Your task to perform on an android device: uninstall "eBay: The shopping marketplace" Image 0: 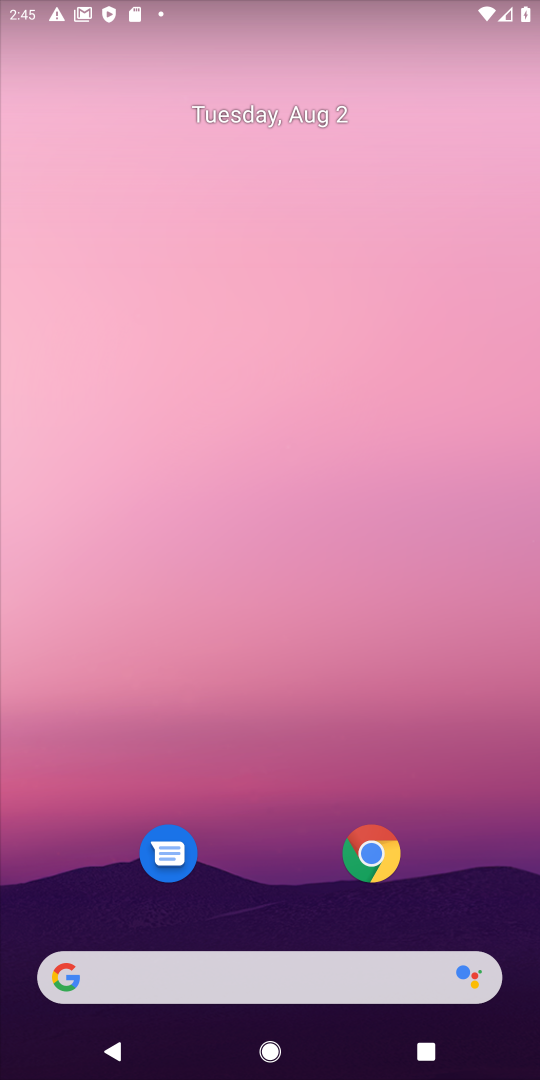
Step 0: drag from (294, 882) to (324, 6)
Your task to perform on an android device: uninstall "eBay: The shopping marketplace" Image 1: 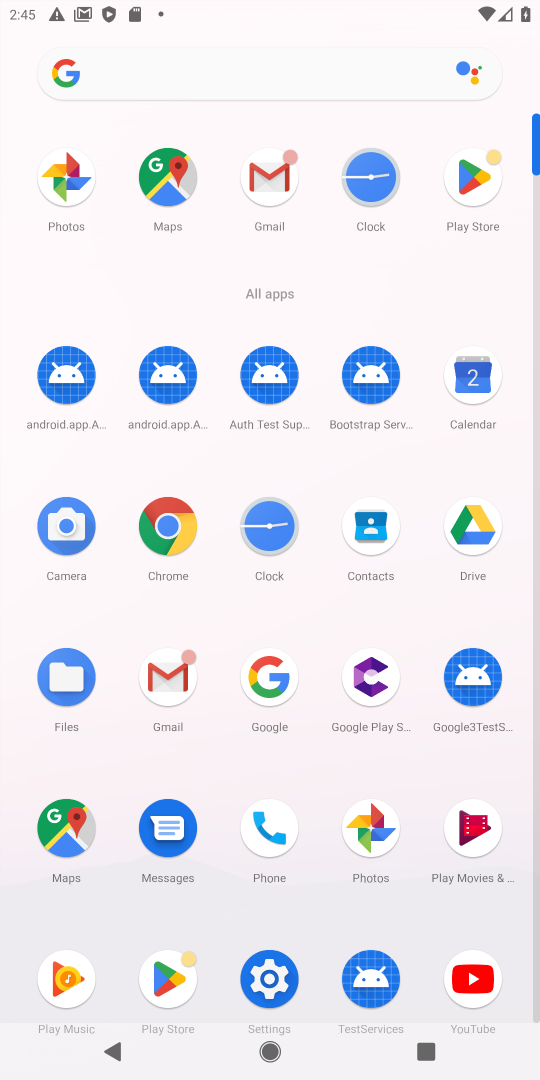
Step 1: click (482, 156)
Your task to perform on an android device: uninstall "eBay: The shopping marketplace" Image 2: 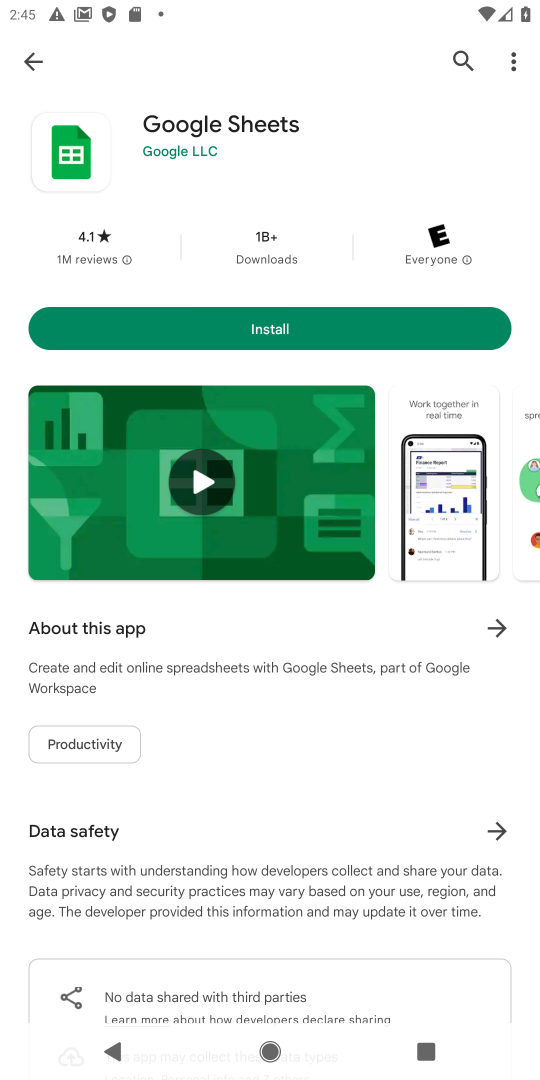
Step 2: click (464, 63)
Your task to perform on an android device: uninstall "eBay: The shopping marketplace" Image 3: 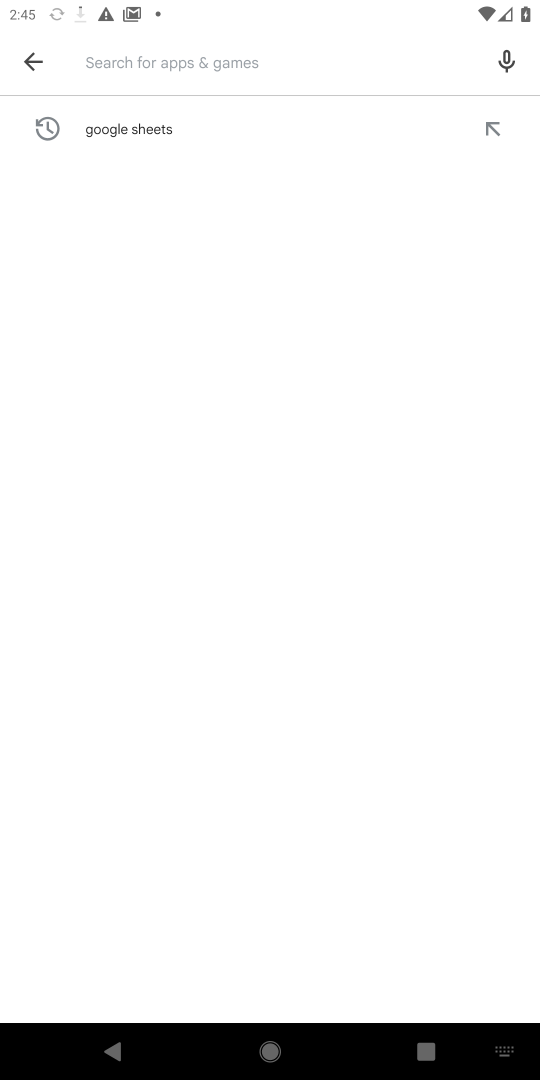
Step 3: type "ebay: the shopping marketplace"
Your task to perform on an android device: uninstall "eBay: The shopping marketplace" Image 4: 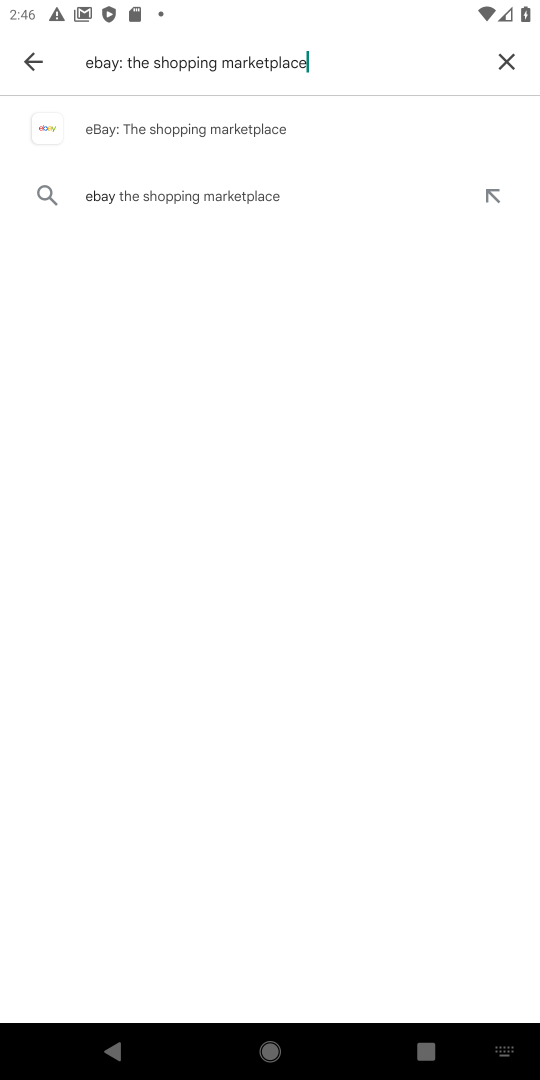
Step 4: click (415, 145)
Your task to perform on an android device: uninstall "eBay: The shopping marketplace" Image 5: 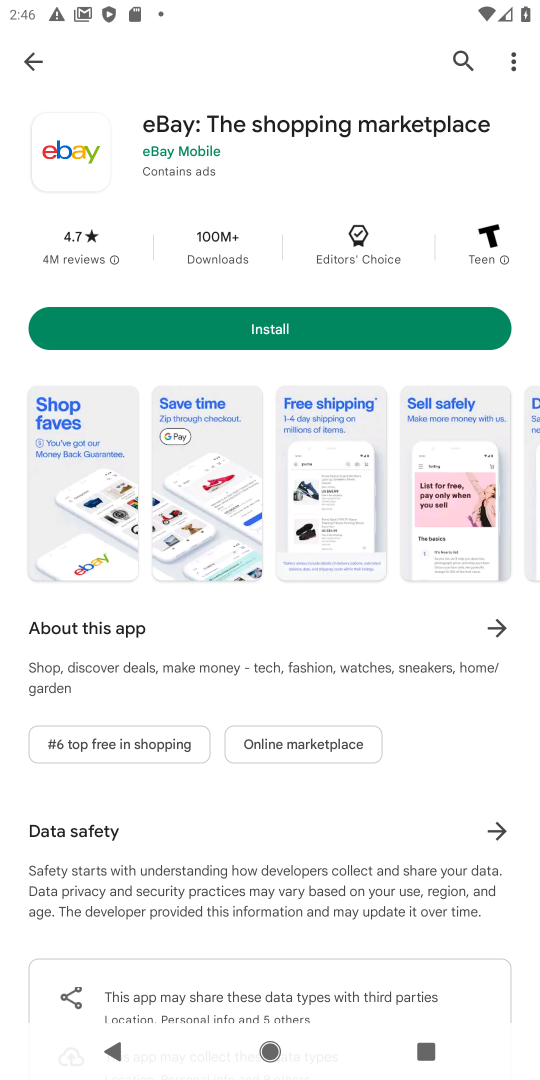
Step 5: task complete